Your task to perform on an android device: star an email in the gmail app Image 0: 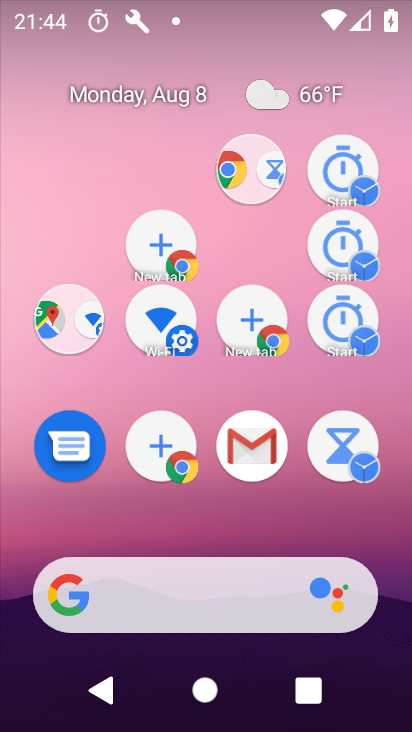
Step 0: drag from (258, 94) to (181, 29)
Your task to perform on an android device: star an email in the gmail app Image 1: 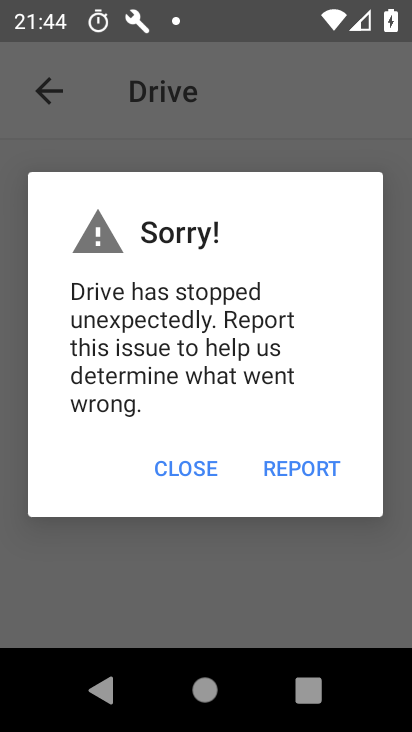
Step 1: drag from (191, 526) to (176, 68)
Your task to perform on an android device: star an email in the gmail app Image 2: 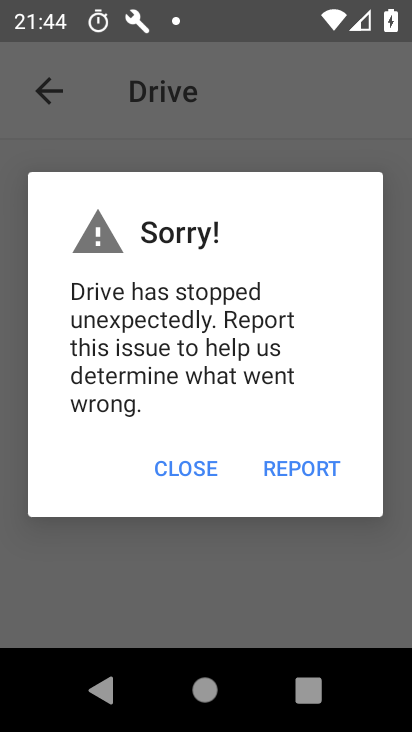
Step 2: drag from (159, 482) to (159, 176)
Your task to perform on an android device: star an email in the gmail app Image 3: 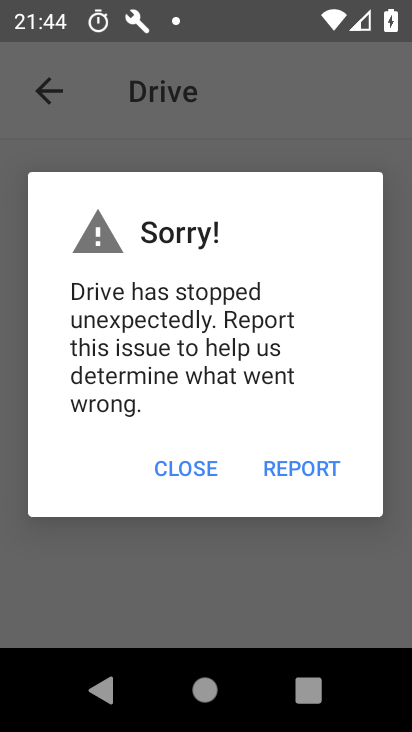
Step 3: click (175, 474)
Your task to perform on an android device: star an email in the gmail app Image 4: 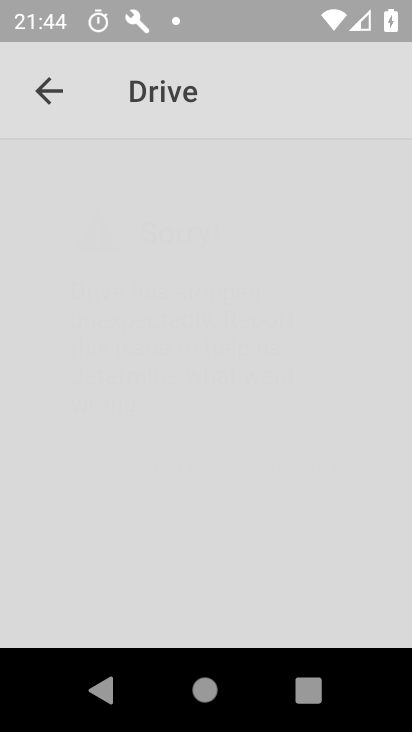
Step 4: click (174, 474)
Your task to perform on an android device: star an email in the gmail app Image 5: 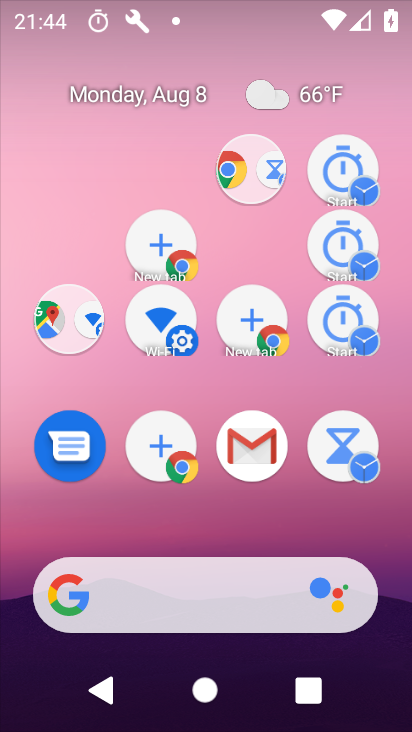
Step 5: drag from (279, 277) to (255, 125)
Your task to perform on an android device: star an email in the gmail app Image 6: 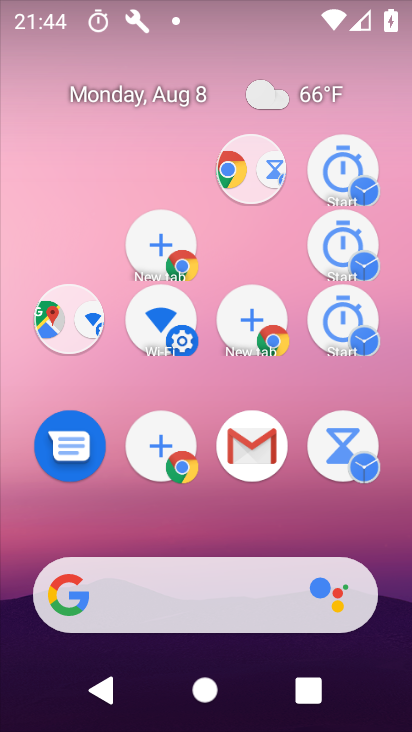
Step 6: drag from (236, 370) to (200, 118)
Your task to perform on an android device: star an email in the gmail app Image 7: 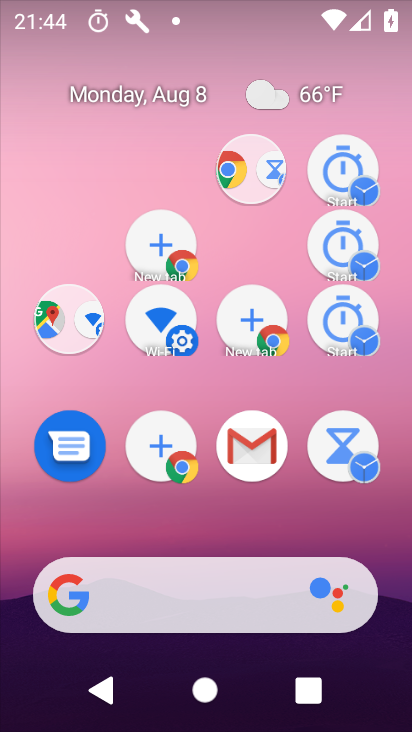
Step 7: drag from (232, 356) to (246, 108)
Your task to perform on an android device: star an email in the gmail app Image 8: 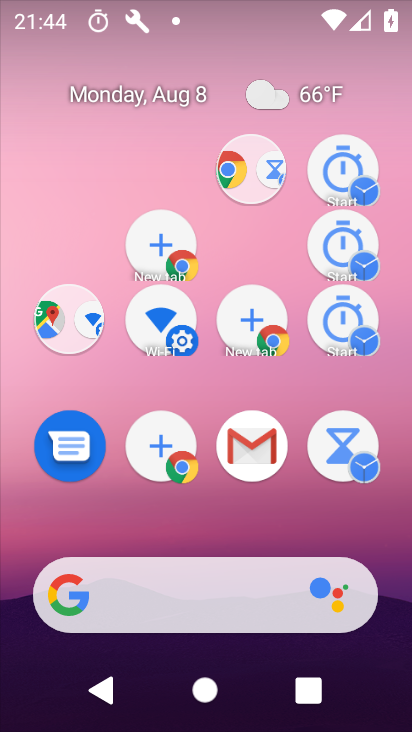
Step 8: drag from (232, 360) to (238, 112)
Your task to perform on an android device: star an email in the gmail app Image 9: 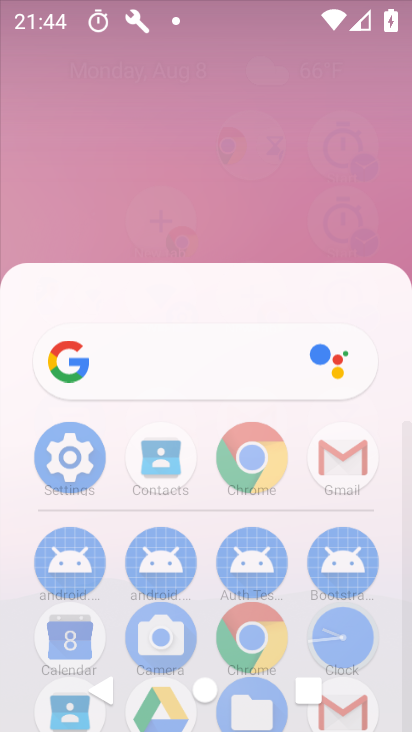
Step 9: click (275, 494)
Your task to perform on an android device: star an email in the gmail app Image 10: 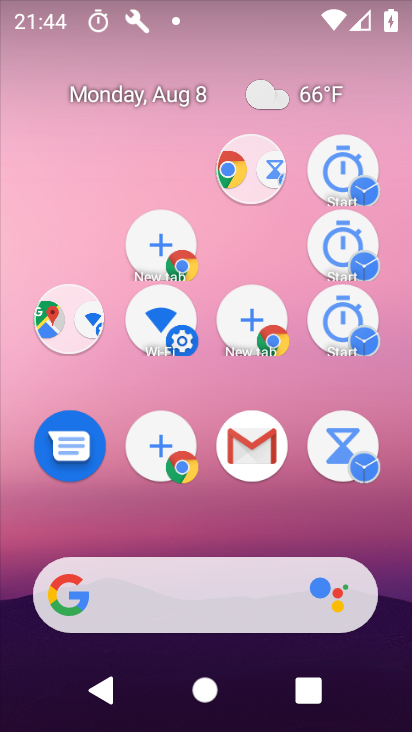
Step 10: drag from (177, 404) to (90, 98)
Your task to perform on an android device: star an email in the gmail app Image 11: 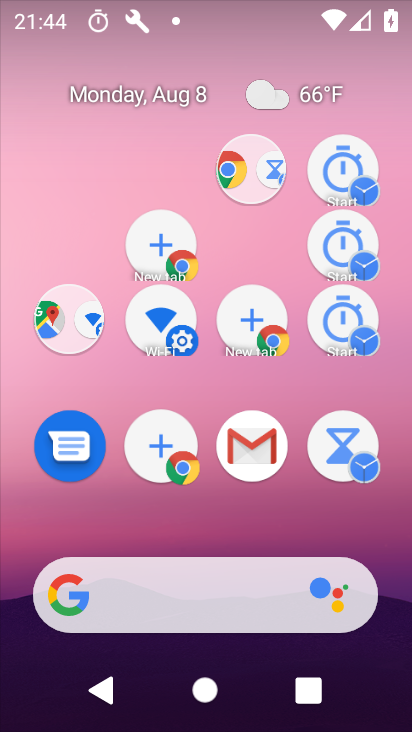
Step 11: drag from (124, 437) to (180, 145)
Your task to perform on an android device: star an email in the gmail app Image 12: 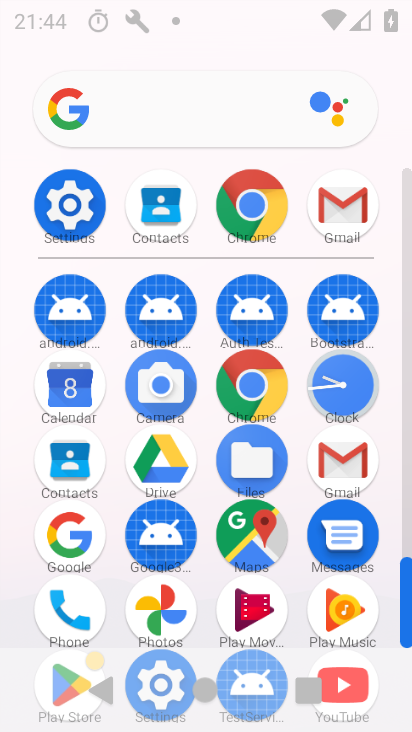
Step 12: drag from (237, 400) to (236, 152)
Your task to perform on an android device: star an email in the gmail app Image 13: 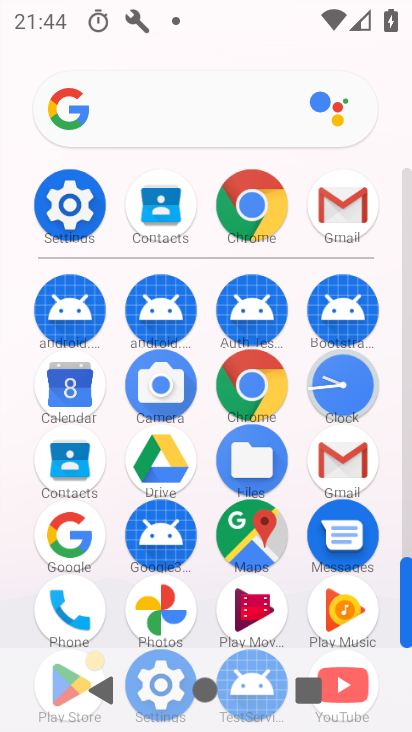
Step 13: click (336, 466)
Your task to perform on an android device: star an email in the gmail app Image 14: 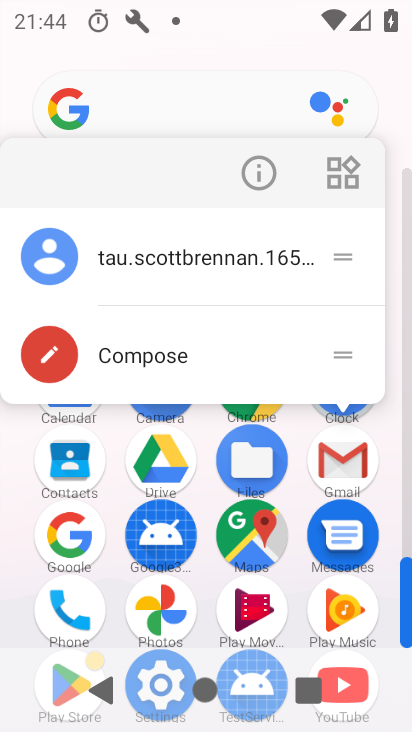
Step 14: click (353, 463)
Your task to perform on an android device: star an email in the gmail app Image 15: 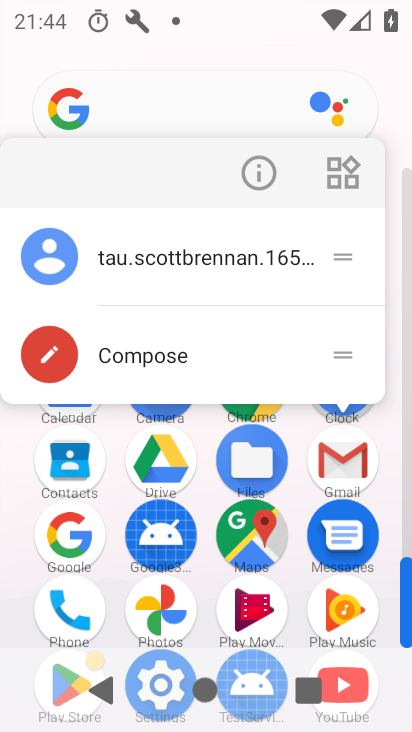
Step 15: click (354, 464)
Your task to perform on an android device: star an email in the gmail app Image 16: 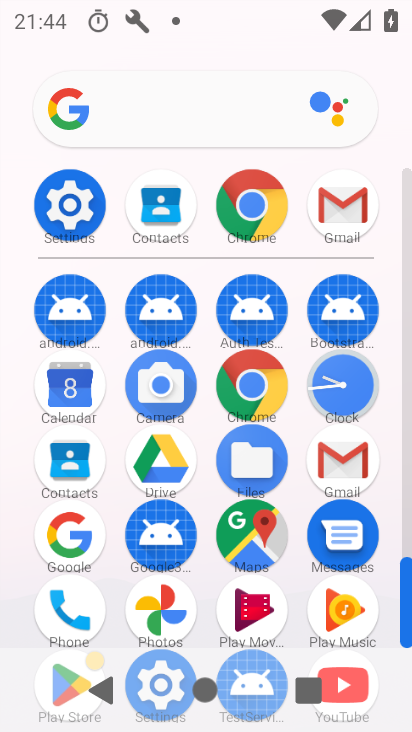
Step 16: click (356, 464)
Your task to perform on an android device: star an email in the gmail app Image 17: 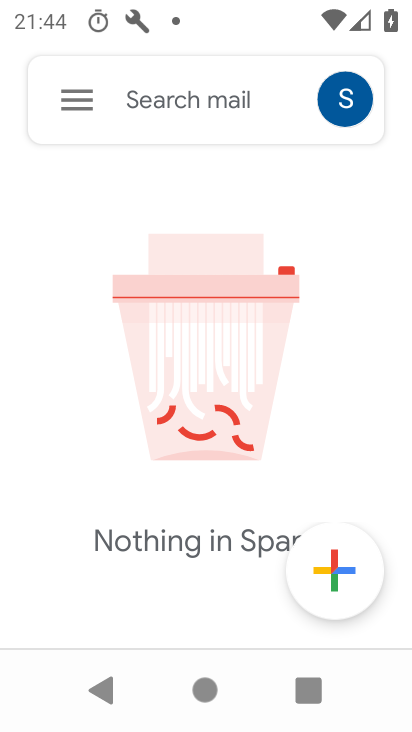
Step 17: click (84, 86)
Your task to perform on an android device: star an email in the gmail app Image 18: 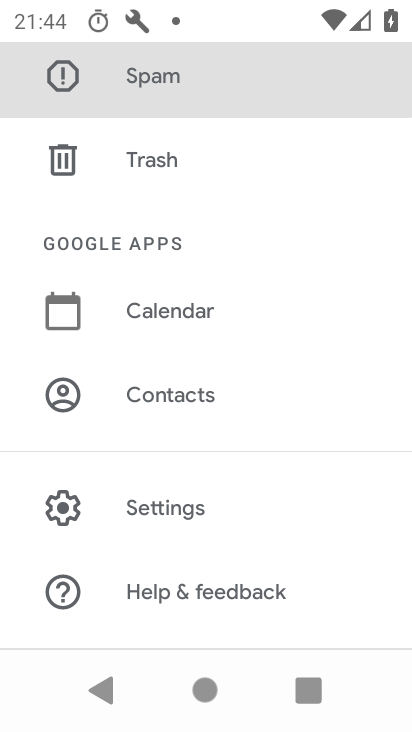
Step 18: drag from (153, 162) to (161, 485)
Your task to perform on an android device: star an email in the gmail app Image 19: 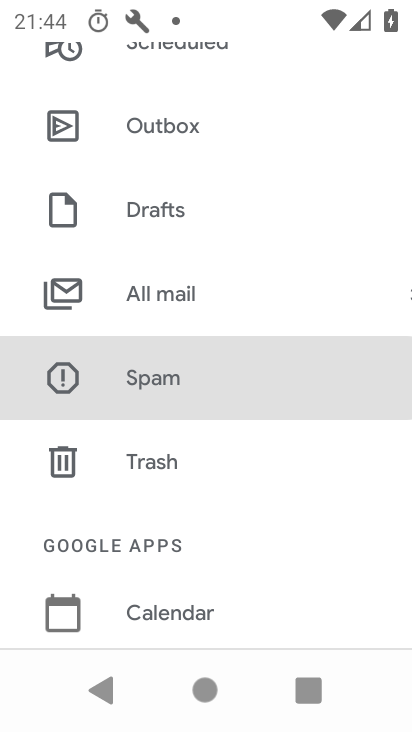
Step 19: drag from (160, 460) to (178, 637)
Your task to perform on an android device: star an email in the gmail app Image 20: 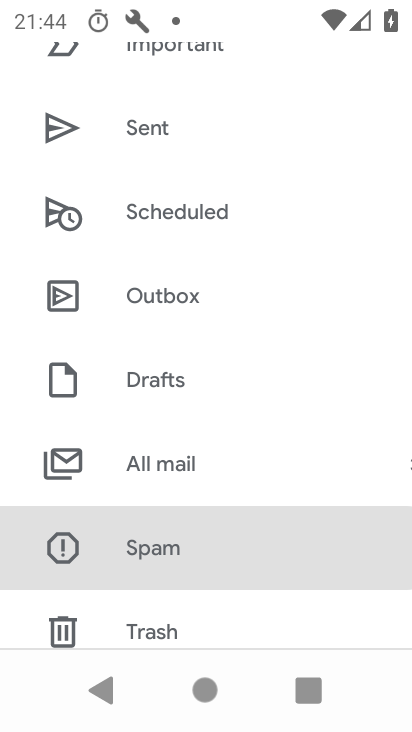
Step 20: drag from (221, 225) to (244, 534)
Your task to perform on an android device: star an email in the gmail app Image 21: 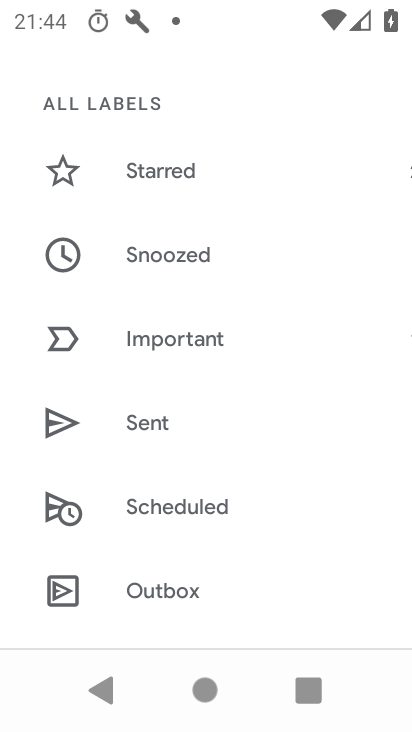
Step 21: drag from (255, 144) to (251, 523)
Your task to perform on an android device: star an email in the gmail app Image 22: 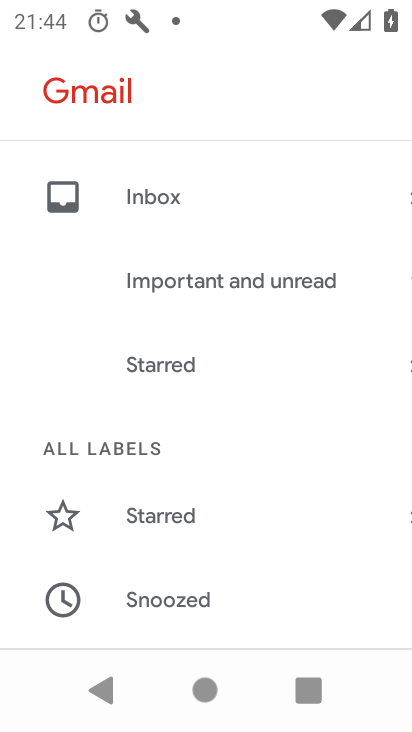
Step 22: drag from (180, 492) to (233, 66)
Your task to perform on an android device: star an email in the gmail app Image 23: 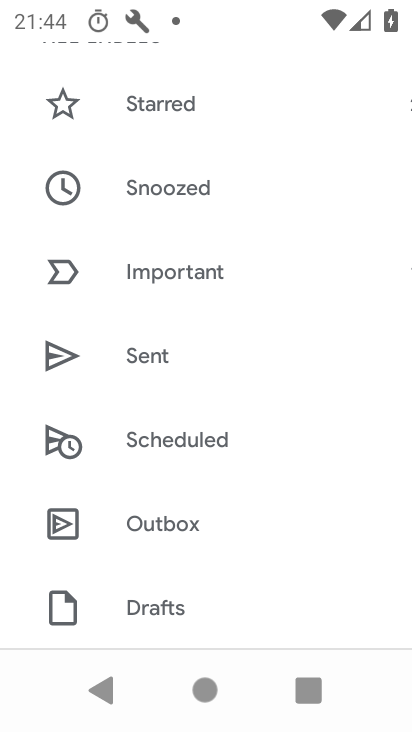
Step 23: drag from (252, 420) to (254, 53)
Your task to perform on an android device: star an email in the gmail app Image 24: 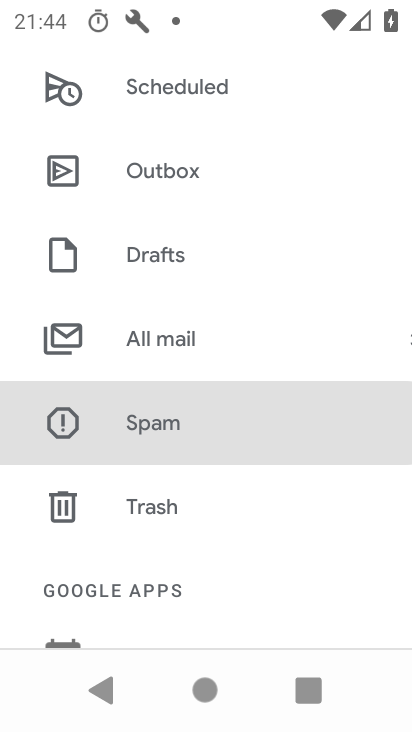
Step 24: drag from (261, 342) to (259, 150)
Your task to perform on an android device: star an email in the gmail app Image 25: 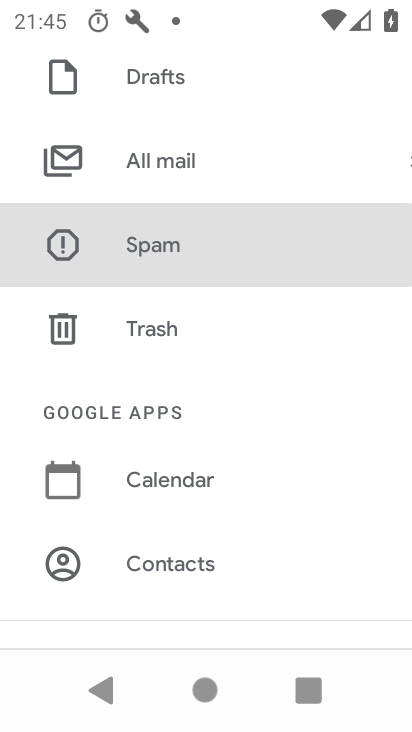
Step 25: click (155, 164)
Your task to perform on an android device: star an email in the gmail app Image 26: 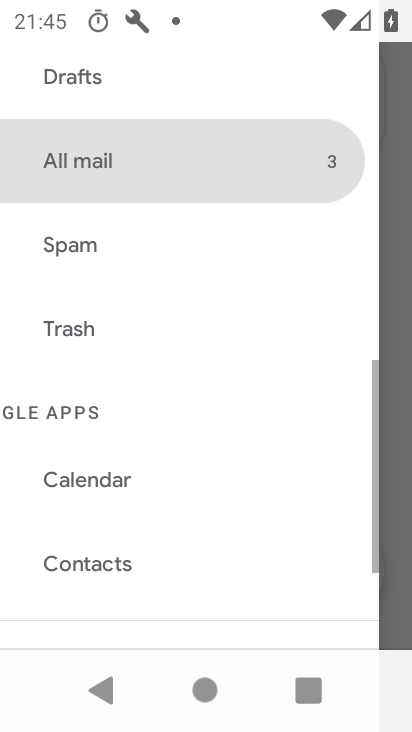
Step 26: click (155, 164)
Your task to perform on an android device: star an email in the gmail app Image 27: 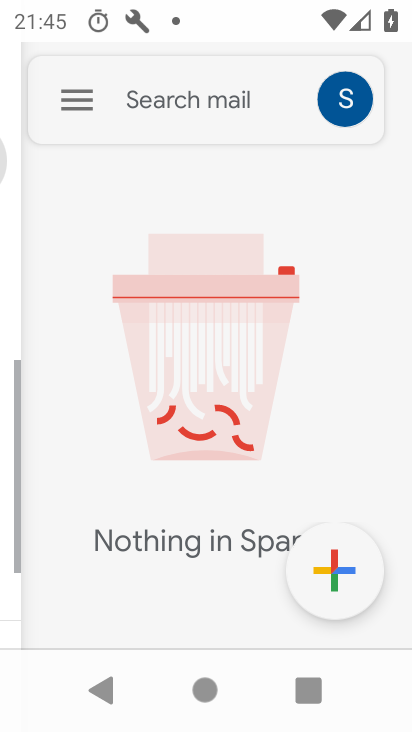
Step 27: click (155, 164)
Your task to perform on an android device: star an email in the gmail app Image 28: 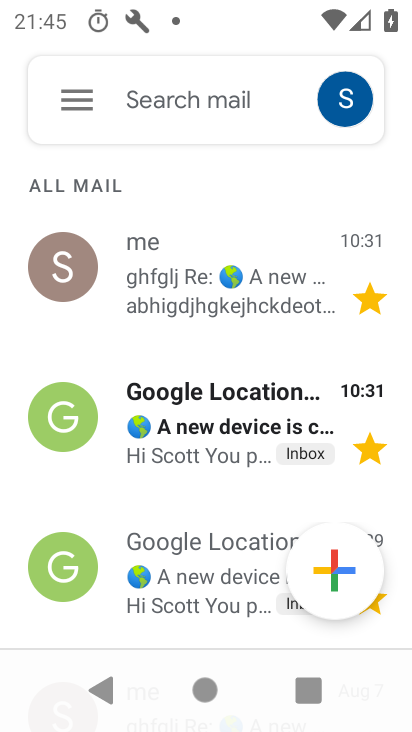
Step 28: drag from (254, 501) to (249, 305)
Your task to perform on an android device: star an email in the gmail app Image 29: 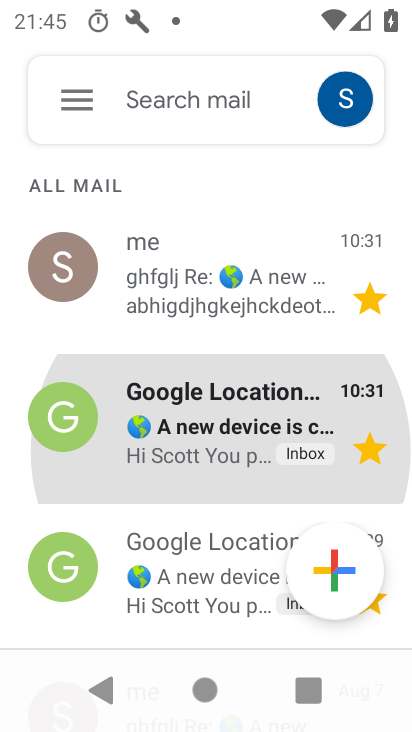
Step 29: drag from (265, 490) to (265, 216)
Your task to perform on an android device: star an email in the gmail app Image 30: 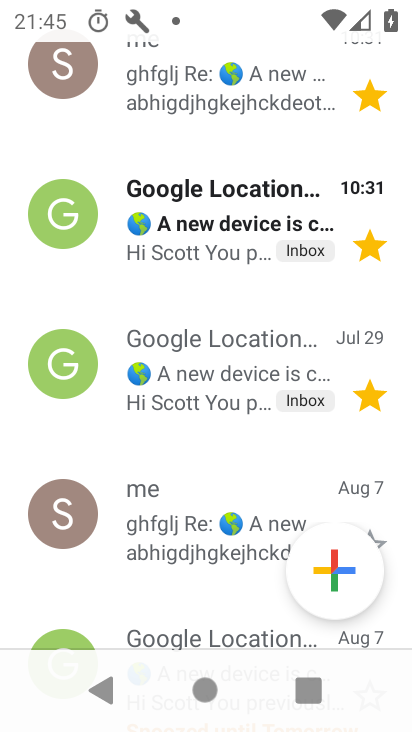
Step 30: click (261, 287)
Your task to perform on an android device: star an email in the gmail app Image 31: 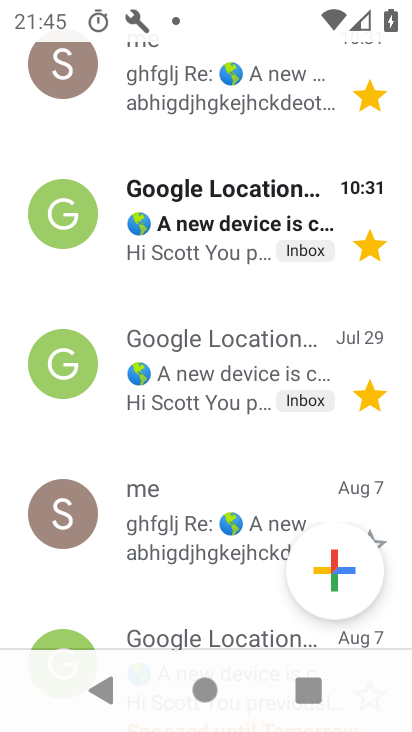
Step 31: click (244, 304)
Your task to perform on an android device: star an email in the gmail app Image 32: 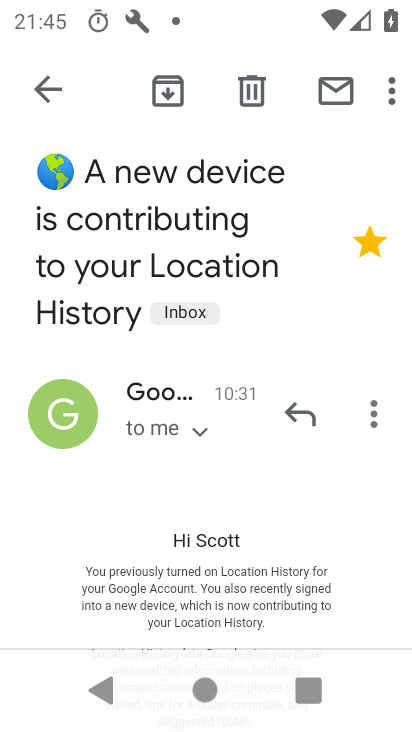
Step 32: click (49, 94)
Your task to perform on an android device: star an email in the gmail app Image 33: 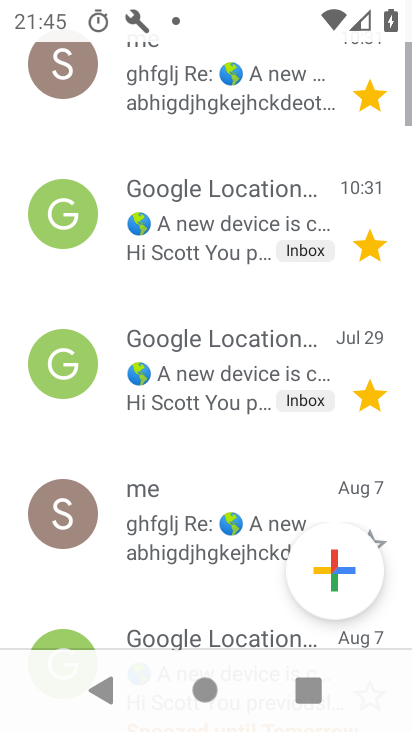
Step 33: drag from (220, 535) to (224, 313)
Your task to perform on an android device: star an email in the gmail app Image 34: 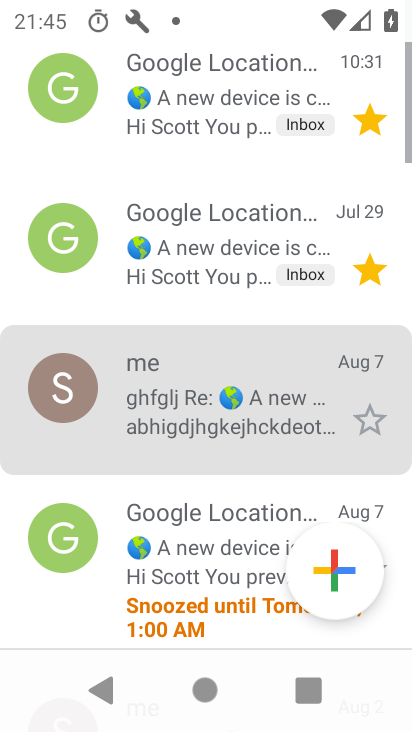
Step 34: drag from (256, 476) to (241, 319)
Your task to perform on an android device: star an email in the gmail app Image 35: 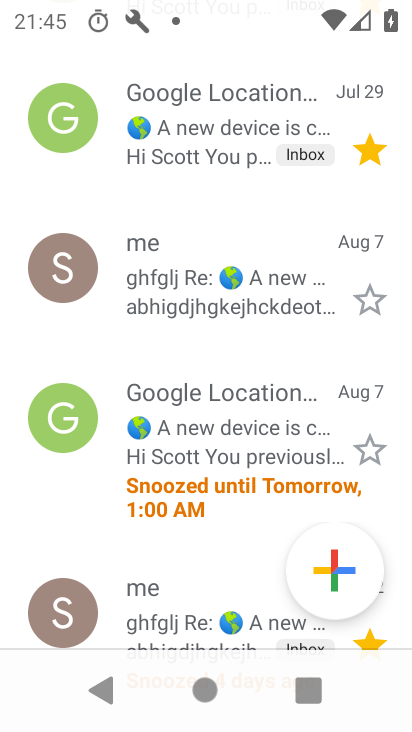
Step 35: click (369, 297)
Your task to perform on an android device: star an email in the gmail app Image 36: 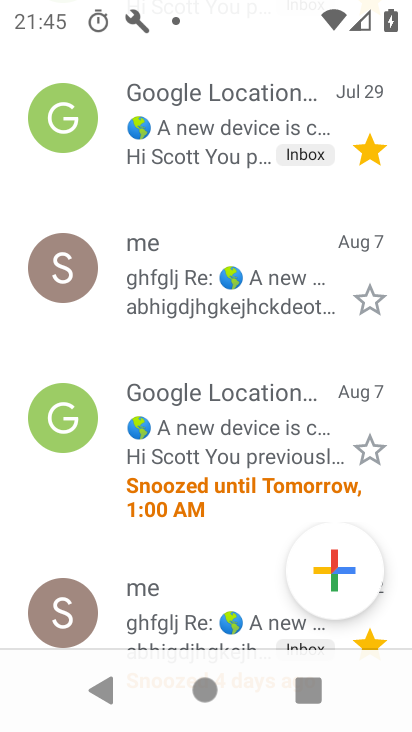
Step 36: click (369, 297)
Your task to perform on an android device: star an email in the gmail app Image 37: 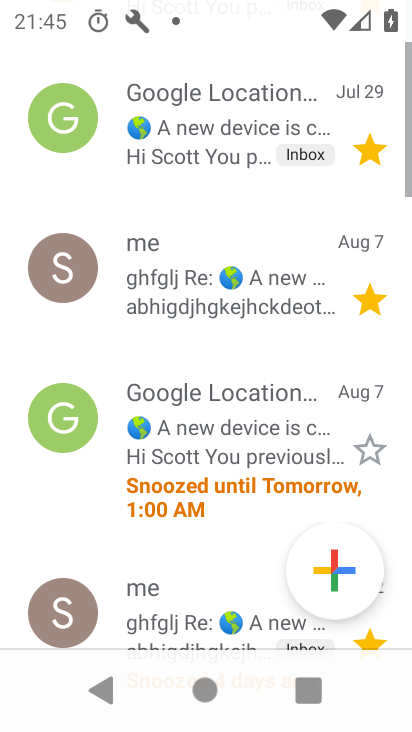
Step 37: click (369, 297)
Your task to perform on an android device: star an email in the gmail app Image 38: 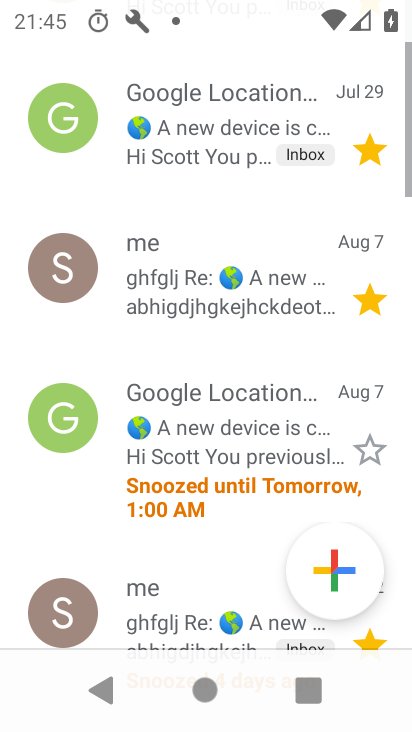
Step 38: click (368, 298)
Your task to perform on an android device: star an email in the gmail app Image 39: 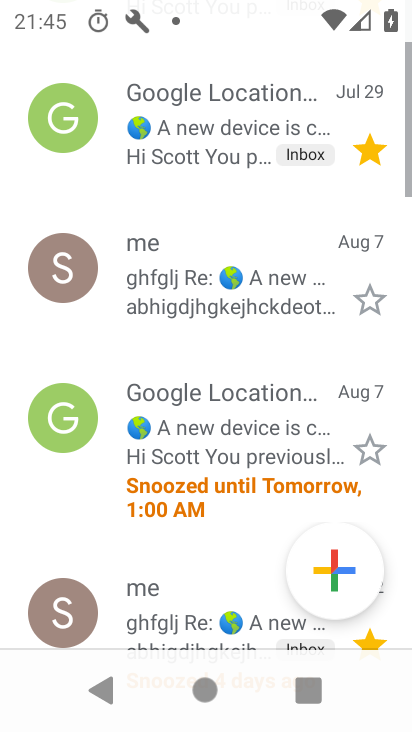
Step 39: click (374, 299)
Your task to perform on an android device: star an email in the gmail app Image 40: 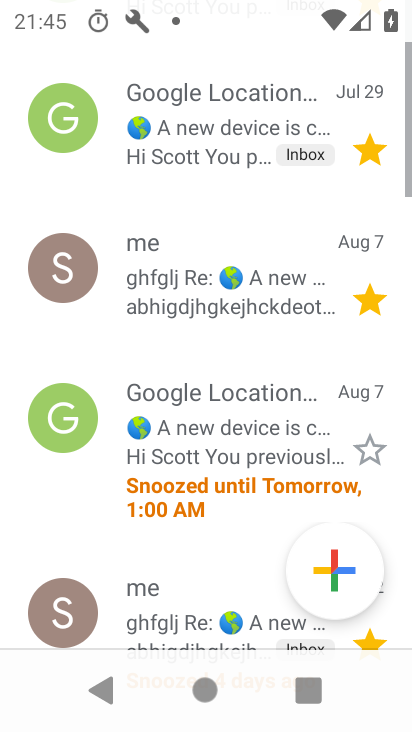
Step 40: task complete